Your task to perform on an android device: toggle location history Image 0: 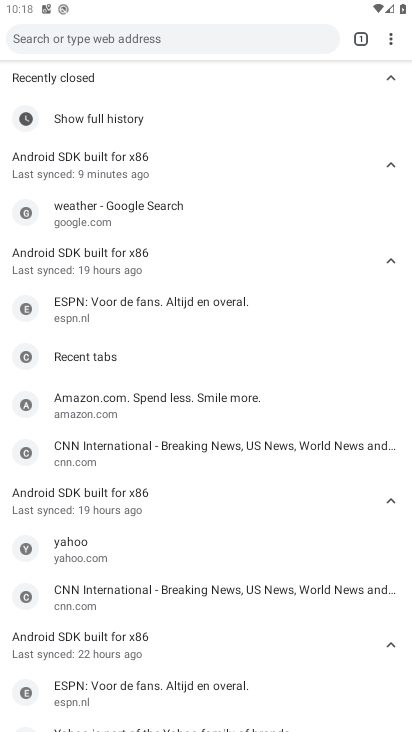
Step 0: drag from (386, 39) to (267, 320)
Your task to perform on an android device: toggle location history Image 1: 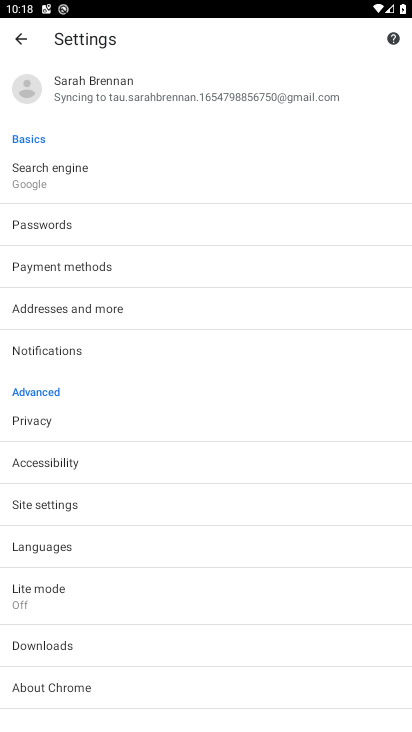
Step 1: press home button
Your task to perform on an android device: toggle location history Image 2: 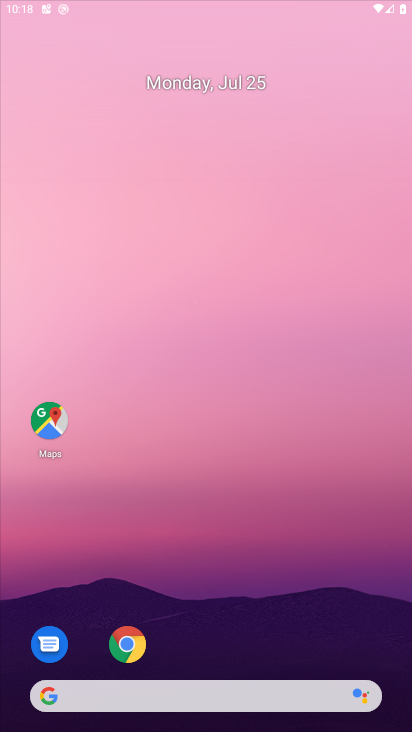
Step 2: drag from (213, 585) to (197, 49)
Your task to perform on an android device: toggle location history Image 3: 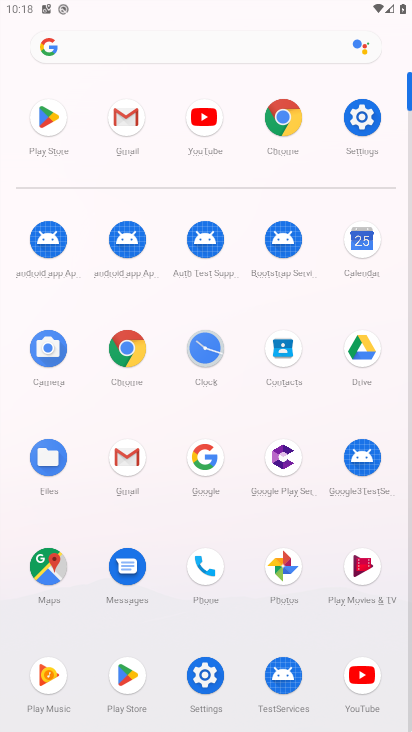
Step 3: click (48, 566)
Your task to perform on an android device: toggle location history Image 4: 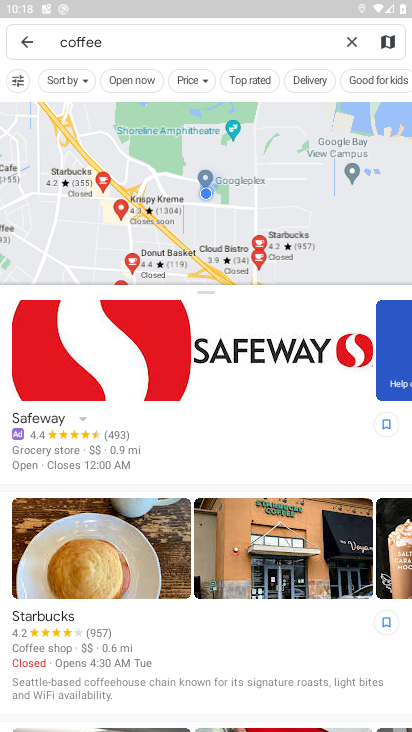
Step 4: click (23, 44)
Your task to perform on an android device: toggle location history Image 5: 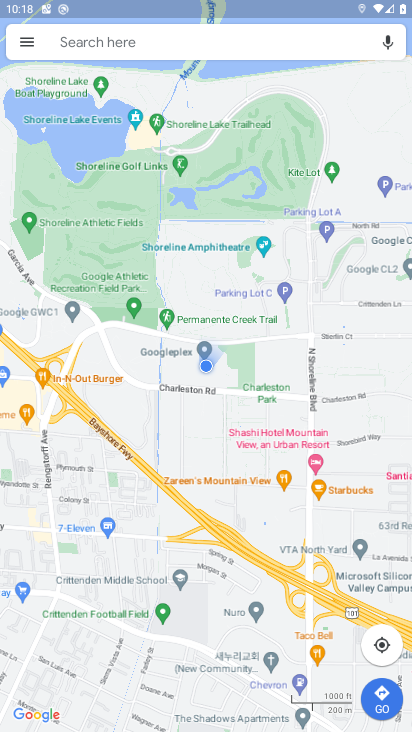
Step 5: click (23, 39)
Your task to perform on an android device: toggle location history Image 6: 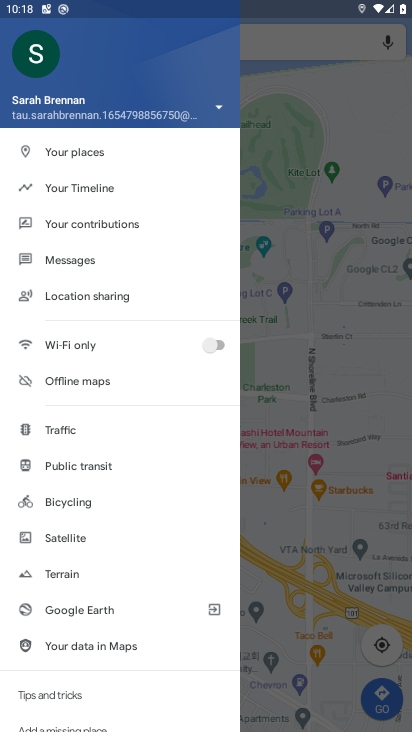
Step 6: click (79, 192)
Your task to perform on an android device: toggle location history Image 7: 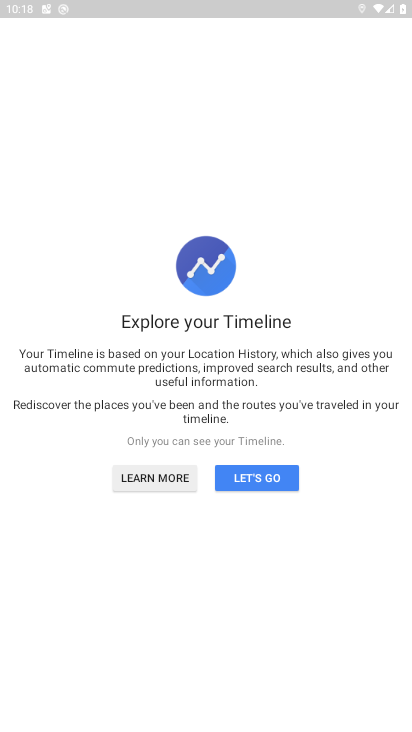
Step 7: click (283, 478)
Your task to perform on an android device: toggle location history Image 8: 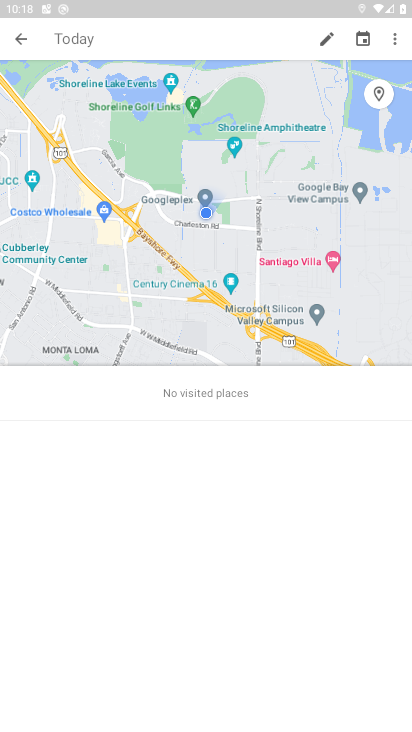
Step 8: drag from (393, 34) to (363, 294)
Your task to perform on an android device: toggle location history Image 9: 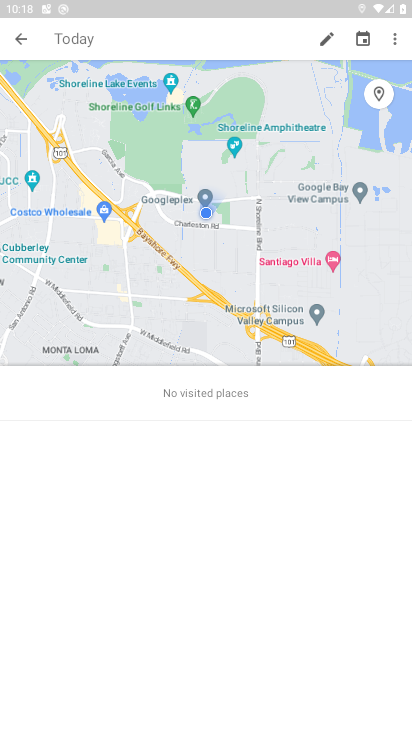
Step 9: click (393, 30)
Your task to perform on an android device: toggle location history Image 10: 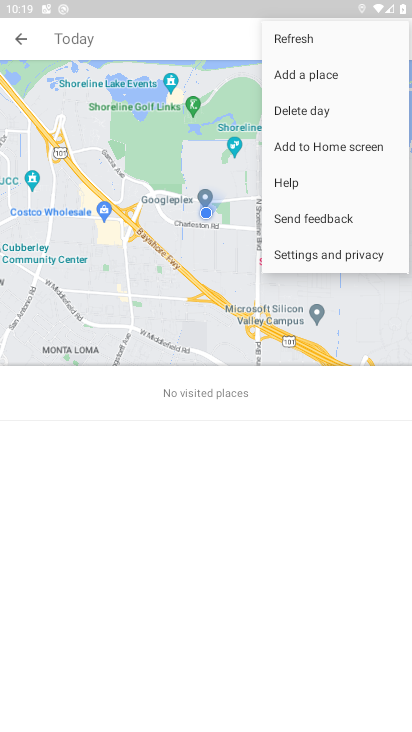
Step 10: click (311, 258)
Your task to perform on an android device: toggle location history Image 11: 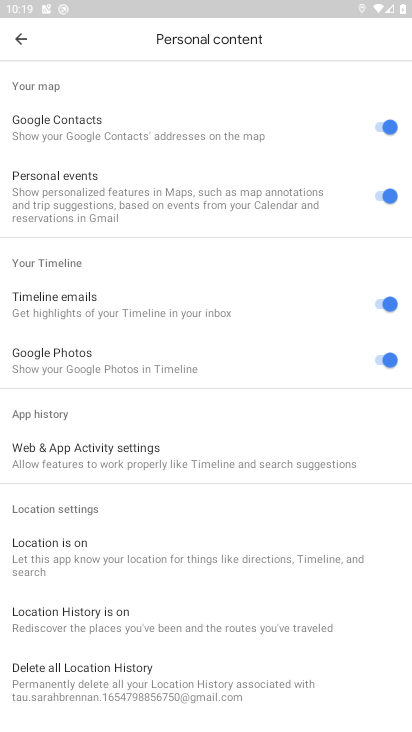
Step 11: click (113, 615)
Your task to perform on an android device: toggle location history Image 12: 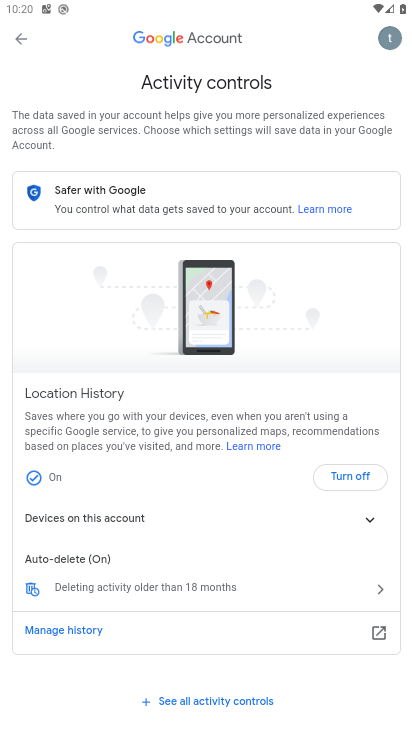
Step 12: drag from (258, 634) to (266, 414)
Your task to perform on an android device: toggle location history Image 13: 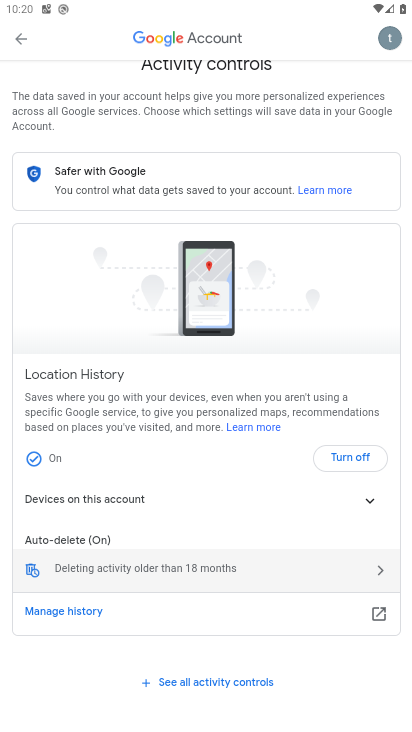
Step 13: click (369, 453)
Your task to perform on an android device: toggle location history Image 14: 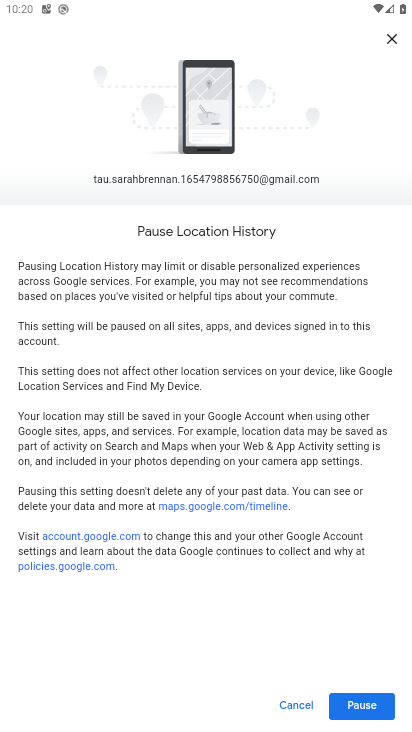
Step 14: click (375, 705)
Your task to perform on an android device: toggle location history Image 15: 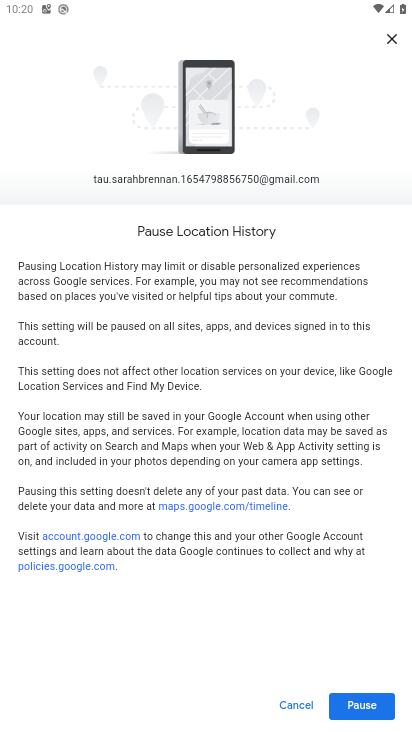
Step 15: click (375, 705)
Your task to perform on an android device: toggle location history Image 16: 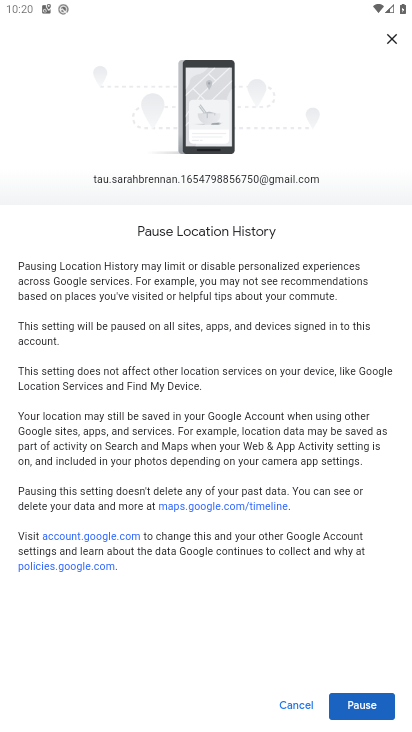
Step 16: click (375, 705)
Your task to perform on an android device: toggle location history Image 17: 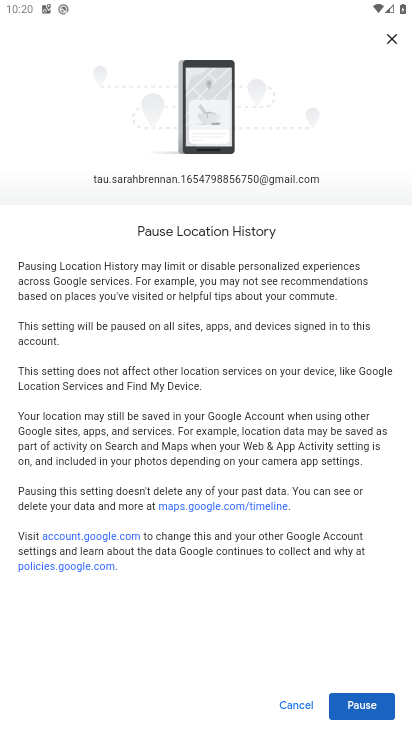
Step 17: click (375, 705)
Your task to perform on an android device: toggle location history Image 18: 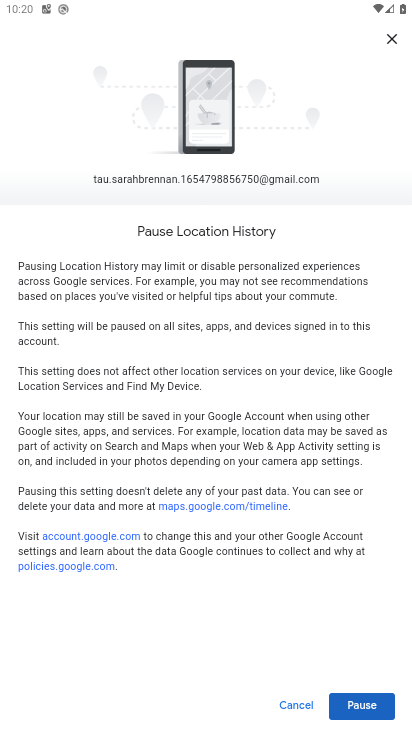
Step 18: click (375, 705)
Your task to perform on an android device: toggle location history Image 19: 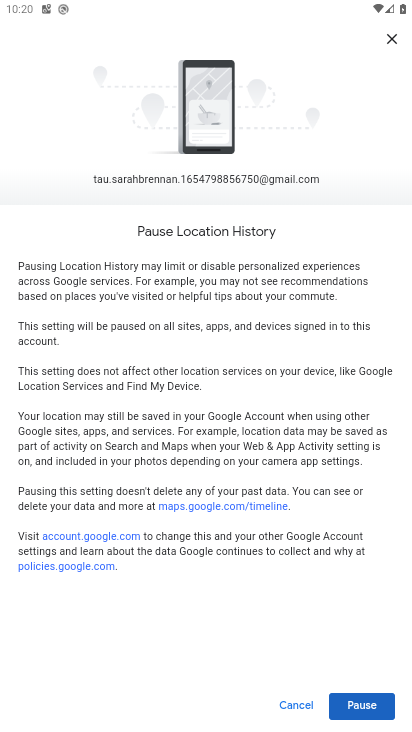
Step 19: click (375, 705)
Your task to perform on an android device: toggle location history Image 20: 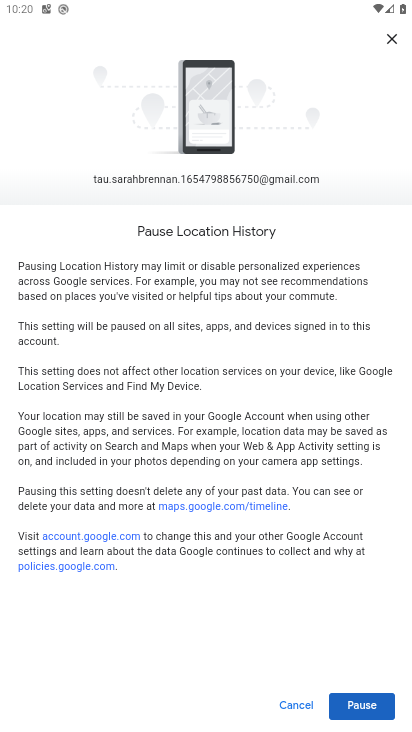
Step 20: click (375, 705)
Your task to perform on an android device: toggle location history Image 21: 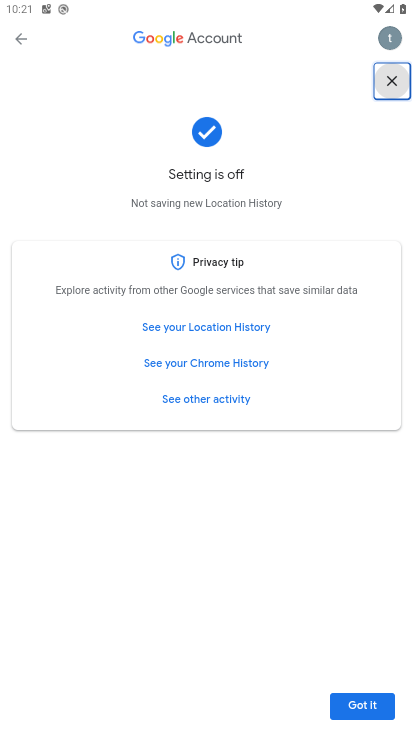
Step 21: click (375, 705)
Your task to perform on an android device: toggle location history Image 22: 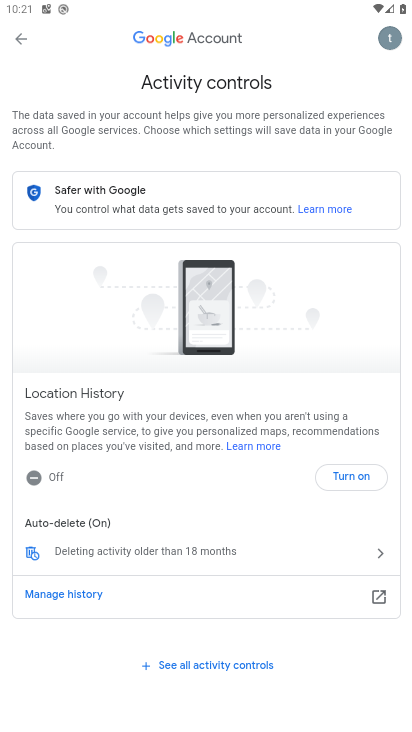
Step 22: task complete